Your task to perform on an android device: Open the phone app and click the voicemail tab. Image 0: 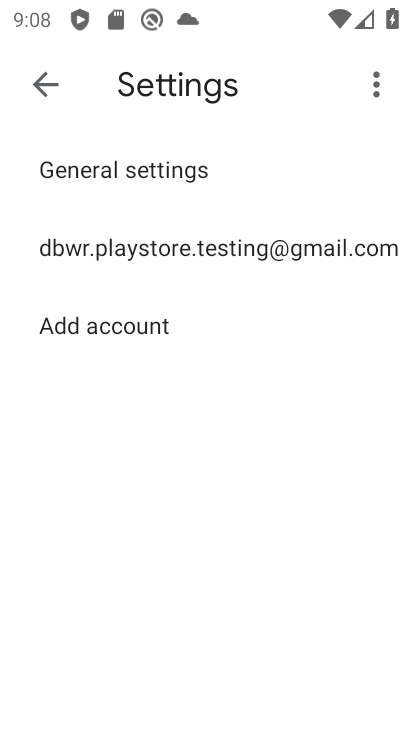
Step 0: press home button
Your task to perform on an android device: Open the phone app and click the voicemail tab. Image 1: 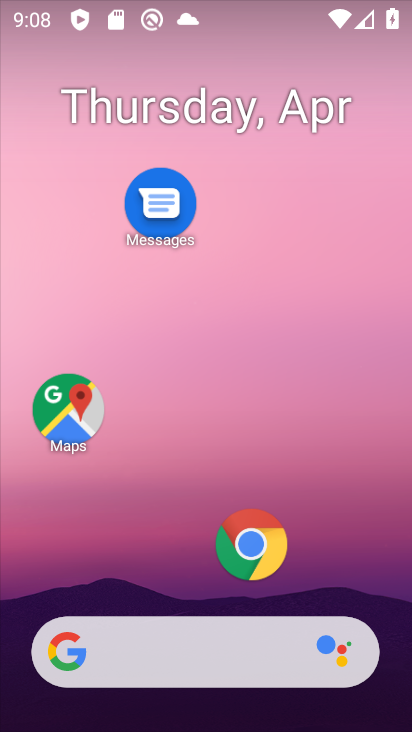
Step 1: drag from (192, 612) to (248, 292)
Your task to perform on an android device: Open the phone app and click the voicemail tab. Image 2: 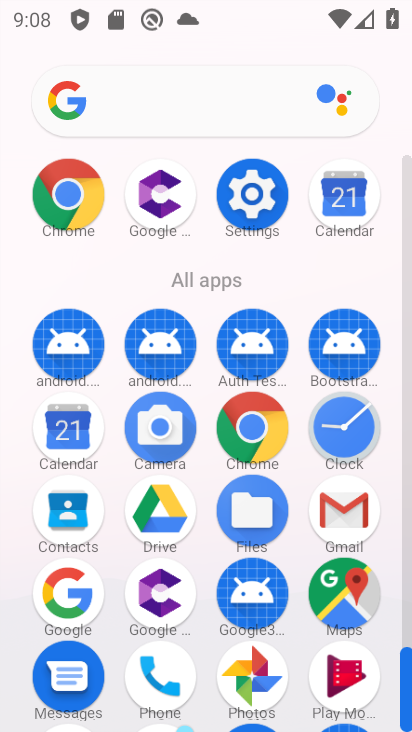
Step 2: click (168, 676)
Your task to perform on an android device: Open the phone app and click the voicemail tab. Image 3: 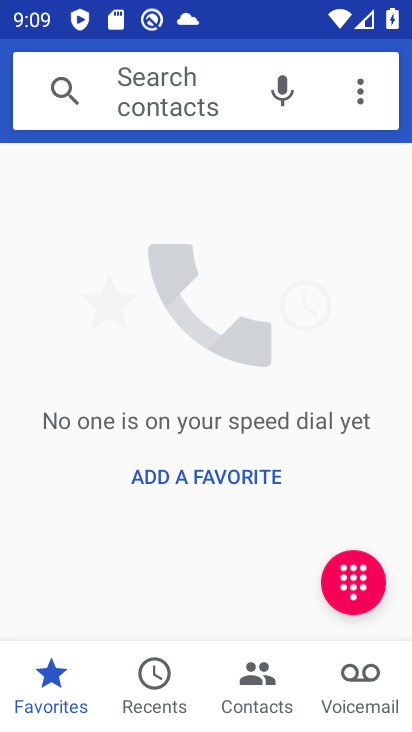
Step 3: click (366, 670)
Your task to perform on an android device: Open the phone app and click the voicemail tab. Image 4: 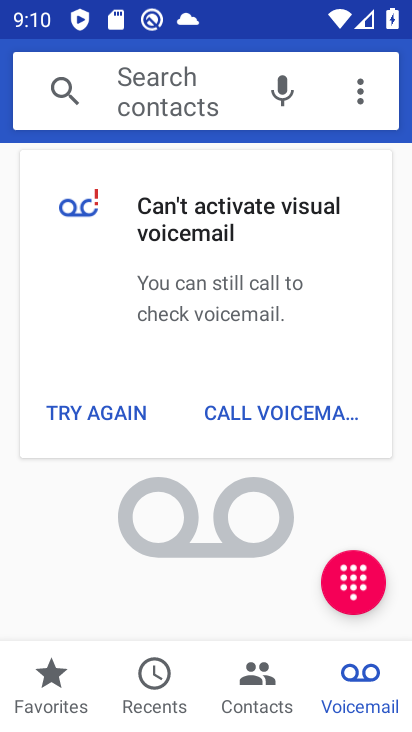
Step 4: task complete